Your task to perform on an android device: remove spam from my inbox in the gmail app Image 0: 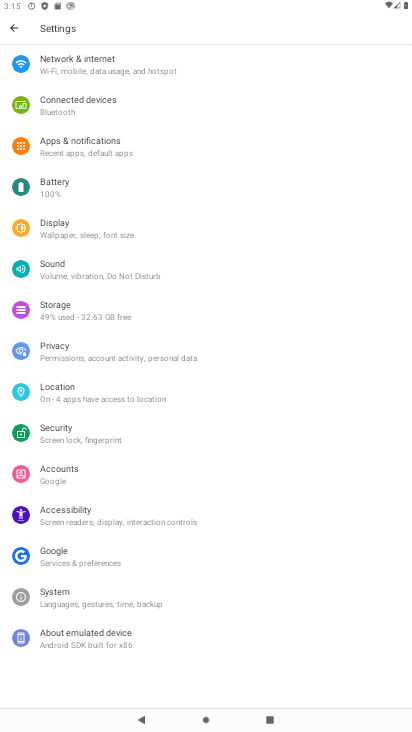
Step 0: press home button
Your task to perform on an android device: remove spam from my inbox in the gmail app Image 1: 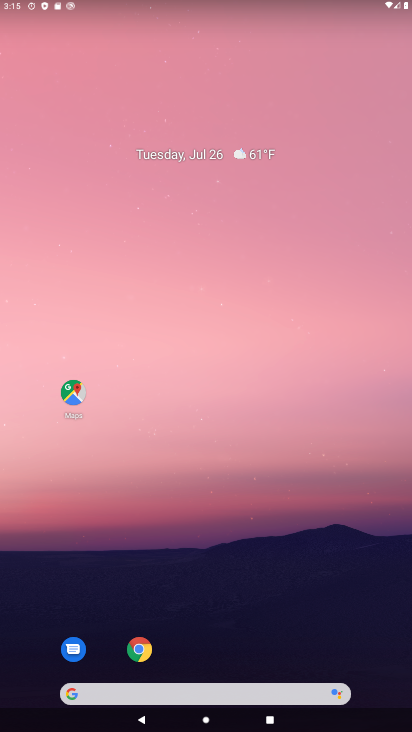
Step 1: drag from (120, 491) to (232, 163)
Your task to perform on an android device: remove spam from my inbox in the gmail app Image 2: 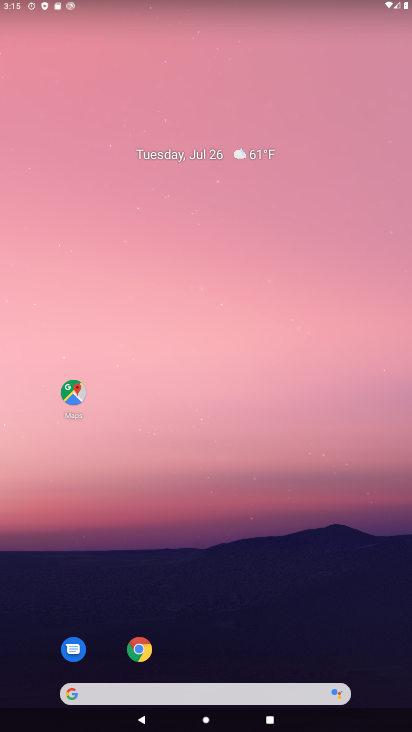
Step 2: drag from (37, 685) to (235, 14)
Your task to perform on an android device: remove spam from my inbox in the gmail app Image 3: 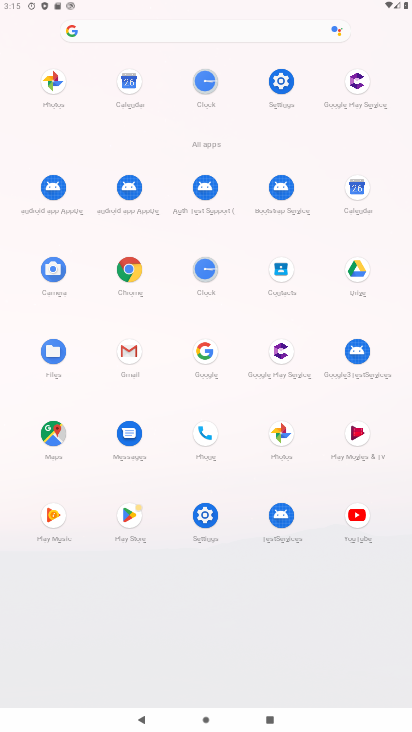
Step 3: click (126, 349)
Your task to perform on an android device: remove spam from my inbox in the gmail app Image 4: 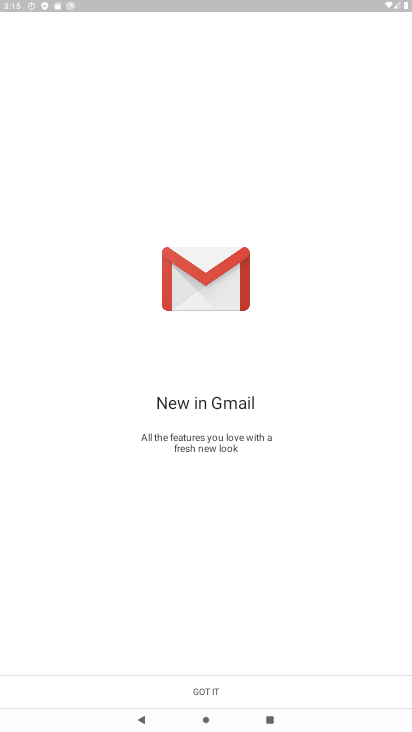
Step 4: click (211, 689)
Your task to perform on an android device: remove spam from my inbox in the gmail app Image 5: 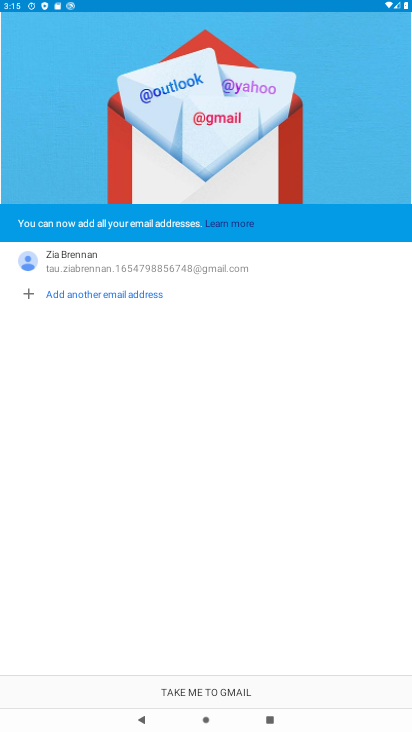
Step 5: click (210, 692)
Your task to perform on an android device: remove spam from my inbox in the gmail app Image 6: 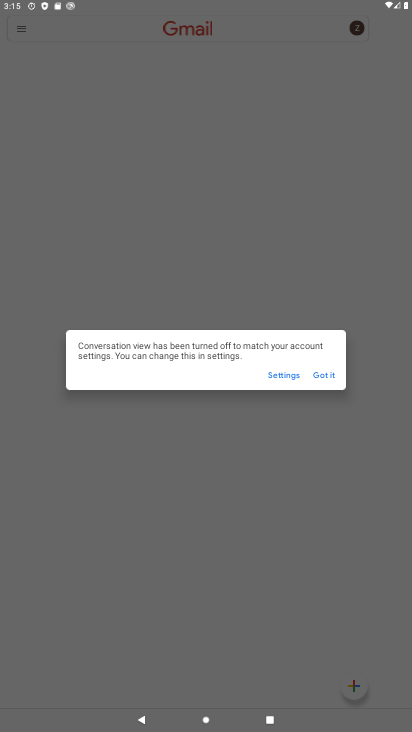
Step 6: click (319, 375)
Your task to perform on an android device: remove spam from my inbox in the gmail app Image 7: 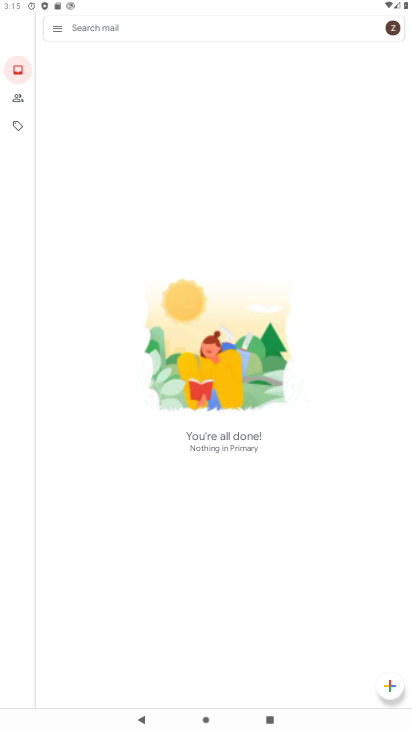
Step 7: click (56, 32)
Your task to perform on an android device: remove spam from my inbox in the gmail app Image 8: 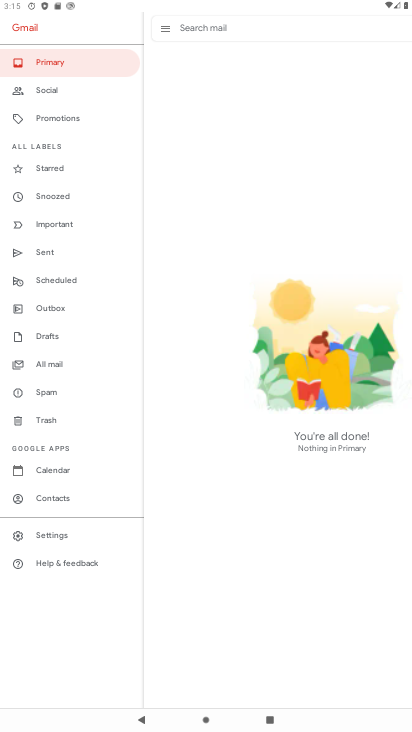
Step 8: click (62, 393)
Your task to perform on an android device: remove spam from my inbox in the gmail app Image 9: 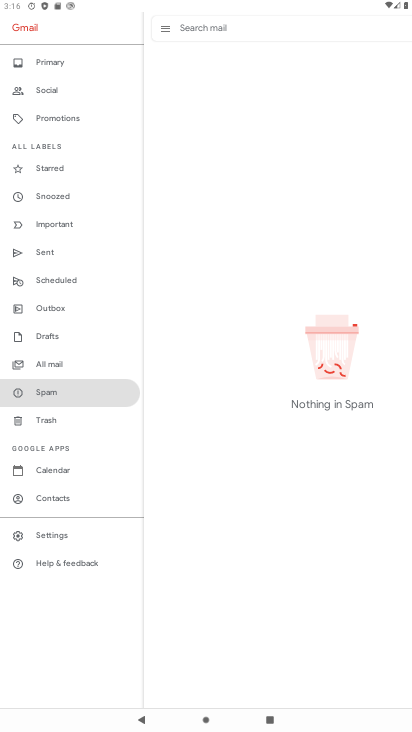
Step 9: task complete